Your task to perform on an android device: visit the assistant section in the google photos Image 0: 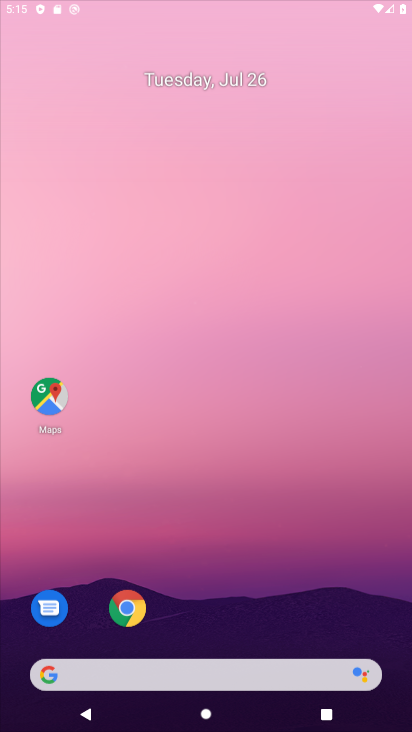
Step 0: press home button
Your task to perform on an android device: visit the assistant section in the google photos Image 1: 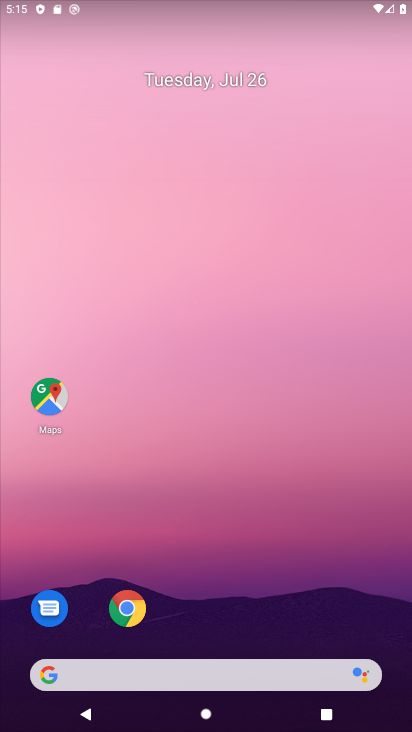
Step 1: drag from (233, 580) to (291, 114)
Your task to perform on an android device: visit the assistant section in the google photos Image 2: 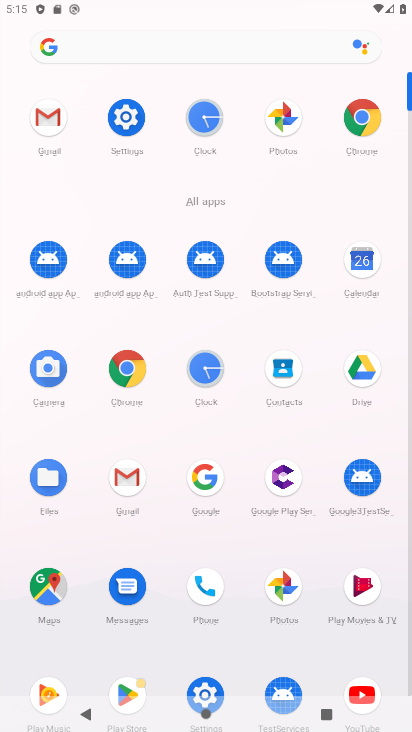
Step 2: click (279, 578)
Your task to perform on an android device: visit the assistant section in the google photos Image 3: 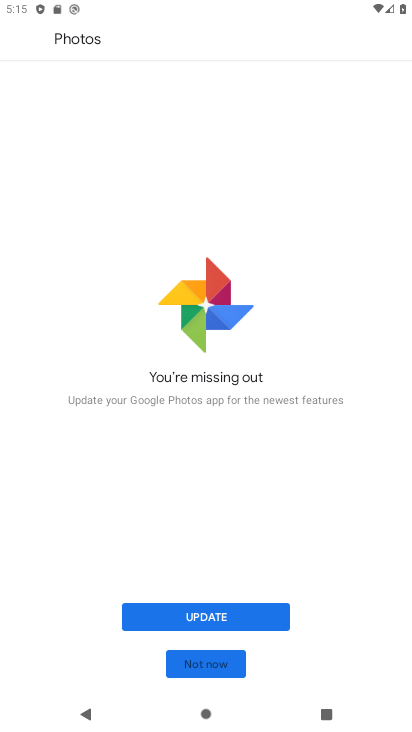
Step 3: click (227, 613)
Your task to perform on an android device: visit the assistant section in the google photos Image 4: 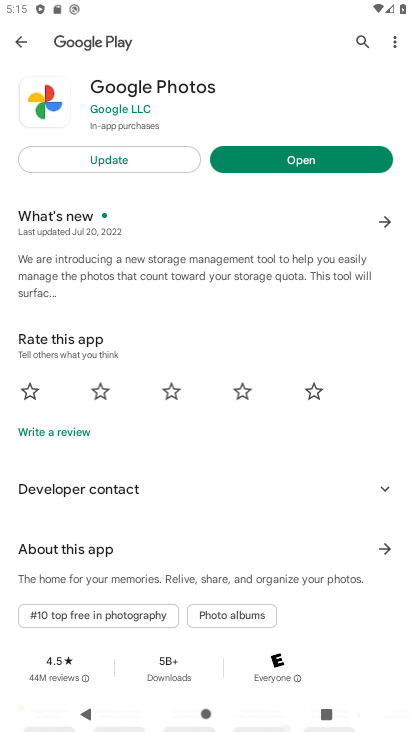
Step 4: click (160, 157)
Your task to perform on an android device: visit the assistant section in the google photos Image 5: 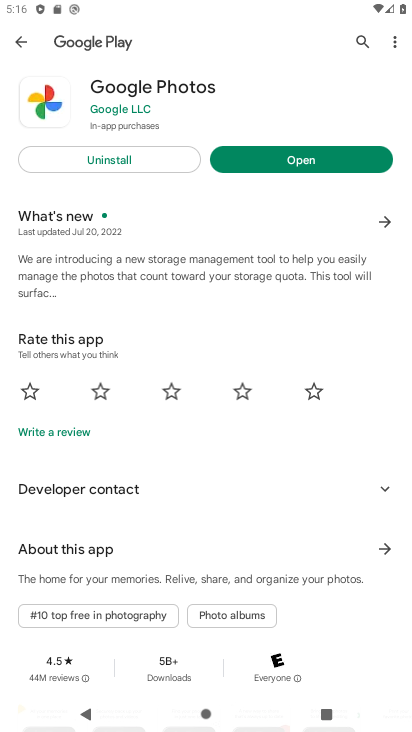
Step 5: click (243, 166)
Your task to perform on an android device: visit the assistant section in the google photos Image 6: 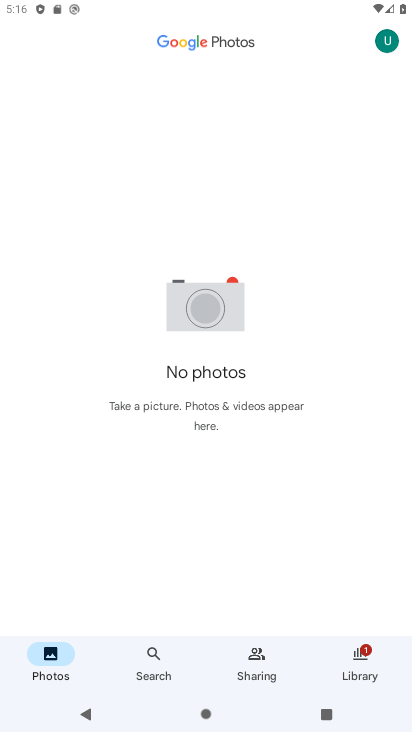
Step 6: click (396, 40)
Your task to perform on an android device: visit the assistant section in the google photos Image 7: 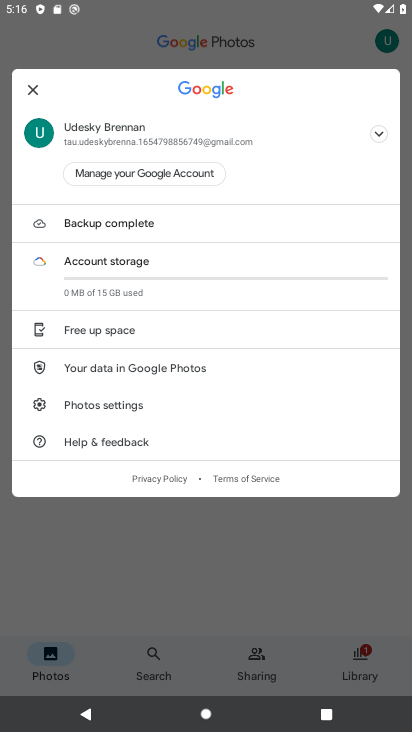
Step 7: task complete